Your task to perform on an android device: change the clock display to analog Image 0: 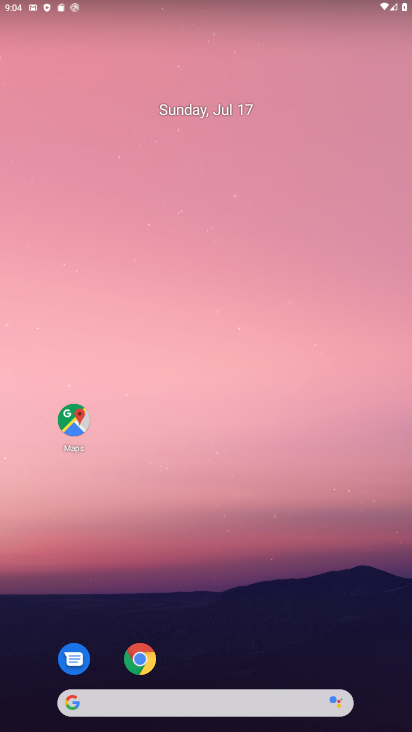
Step 0: click (294, 606)
Your task to perform on an android device: change the clock display to analog Image 1: 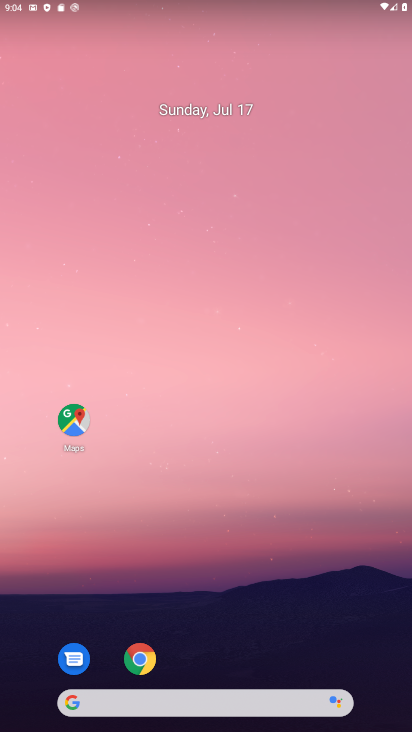
Step 1: drag from (89, 576) to (211, 25)
Your task to perform on an android device: change the clock display to analog Image 2: 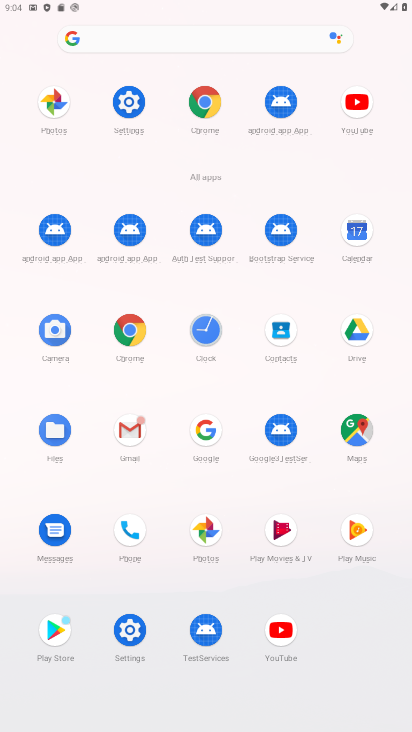
Step 2: click (204, 331)
Your task to perform on an android device: change the clock display to analog Image 3: 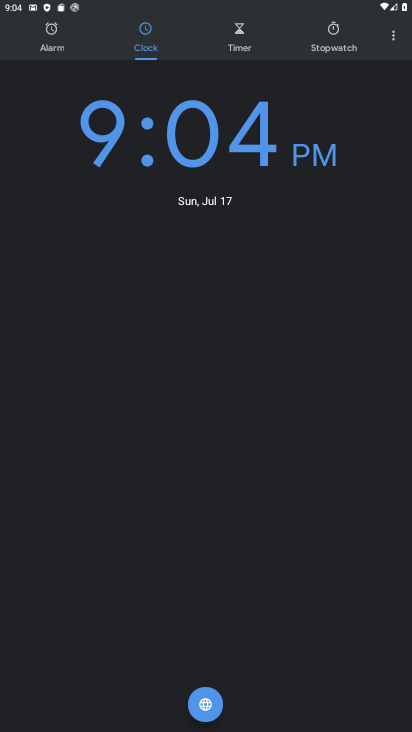
Step 3: click (405, 35)
Your task to perform on an android device: change the clock display to analog Image 4: 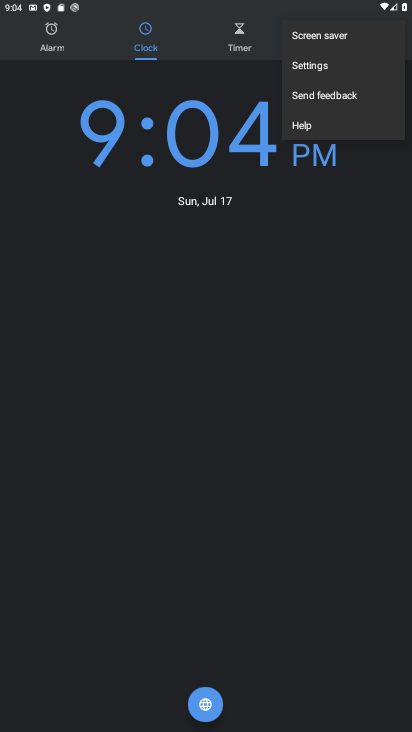
Step 4: click (330, 63)
Your task to perform on an android device: change the clock display to analog Image 5: 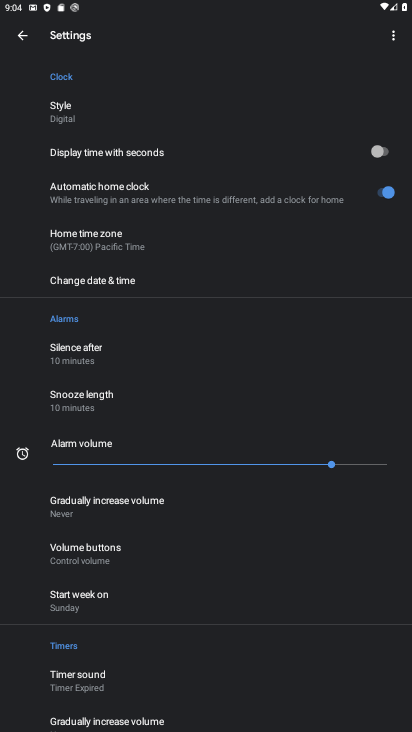
Step 5: click (65, 104)
Your task to perform on an android device: change the clock display to analog Image 6: 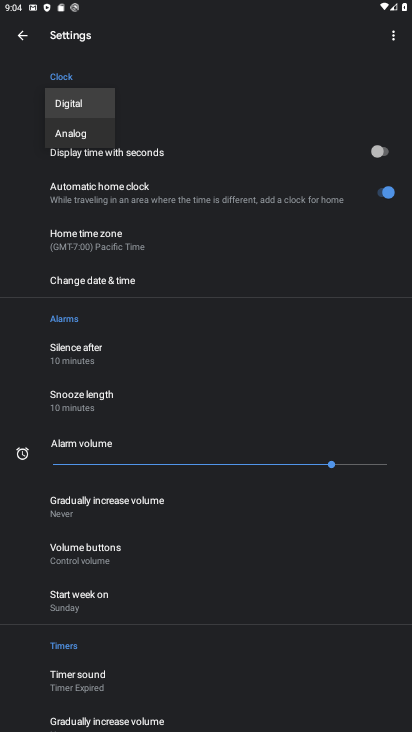
Step 6: click (74, 134)
Your task to perform on an android device: change the clock display to analog Image 7: 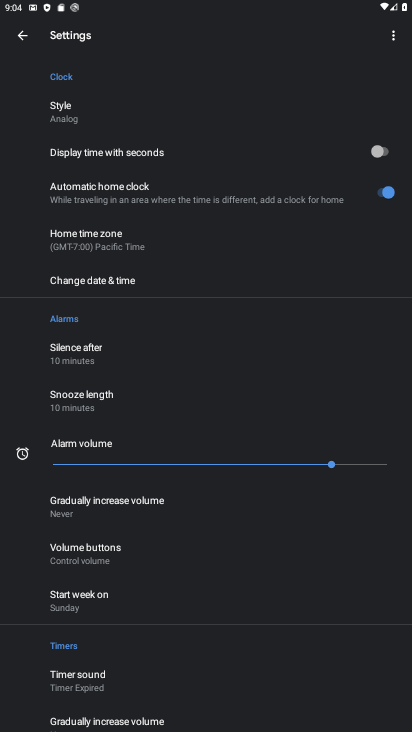
Step 7: task complete